Your task to perform on an android device: turn on bluetooth scan Image 0: 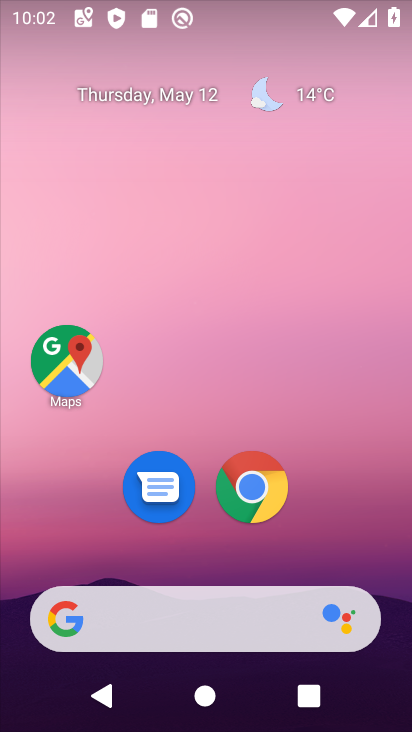
Step 0: drag from (77, 581) to (252, 232)
Your task to perform on an android device: turn on bluetooth scan Image 1: 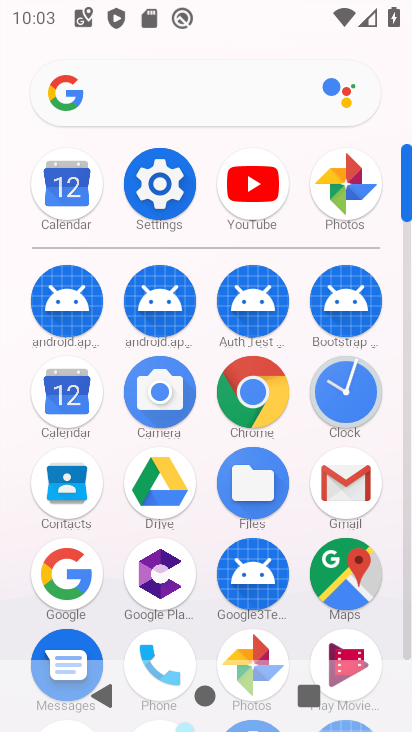
Step 1: click (157, 183)
Your task to perform on an android device: turn on bluetooth scan Image 2: 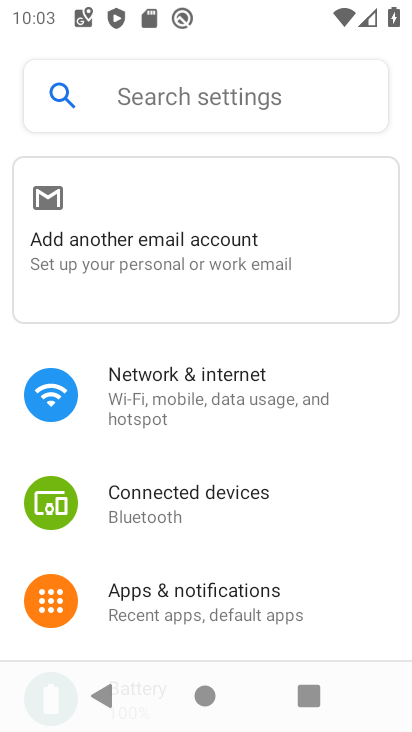
Step 2: drag from (167, 633) to (318, 116)
Your task to perform on an android device: turn on bluetooth scan Image 3: 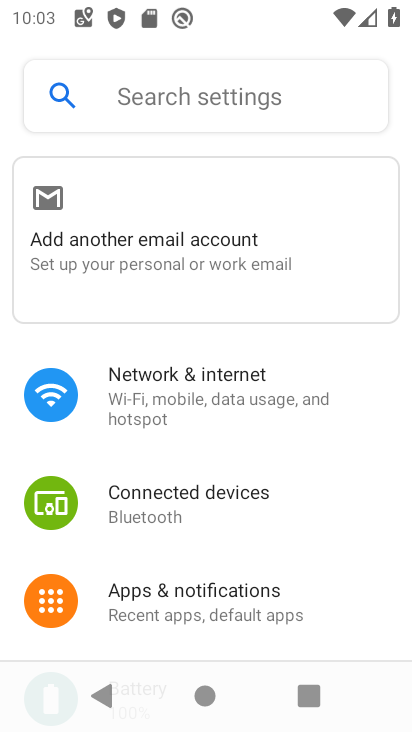
Step 3: drag from (5, 635) to (265, 246)
Your task to perform on an android device: turn on bluetooth scan Image 4: 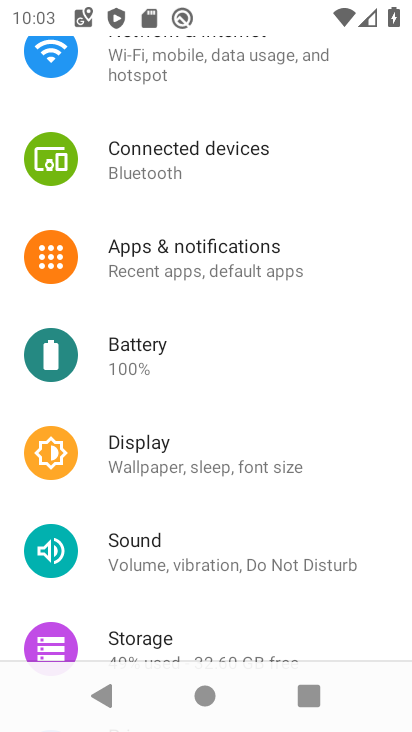
Step 4: drag from (20, 592) to (270, 156)
Your task to perform on an android device: turn on bluetooth scan Image 5: 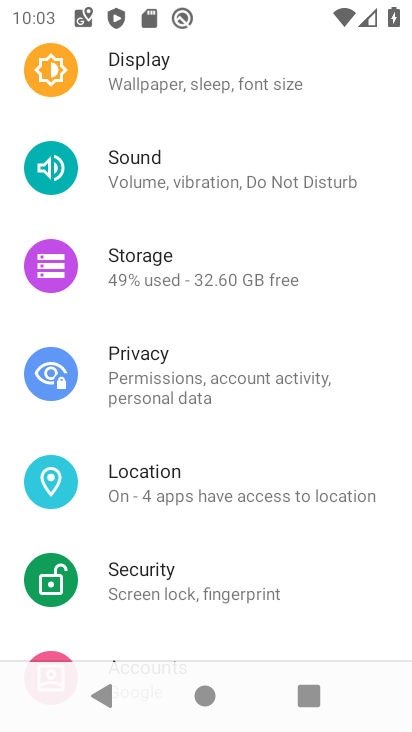
Step 5: click (148, 498)
Your task to perform on an android device: turn on bluetooth scan Image 6: 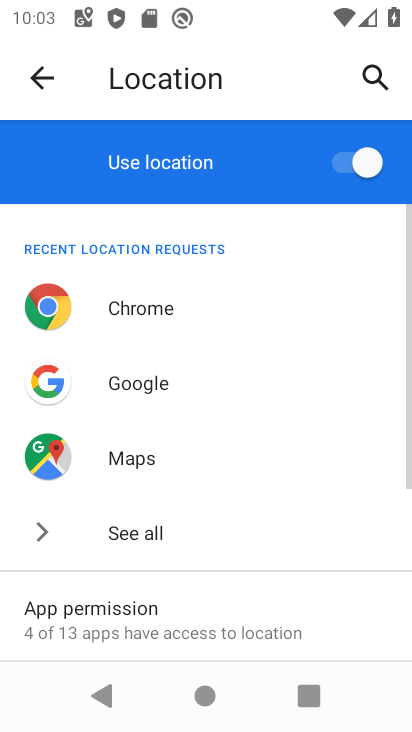
Step 6: drag from (19, 570) to (342, 76)
Your task to perform on an android device: turn on bluetooth scan Image 7: 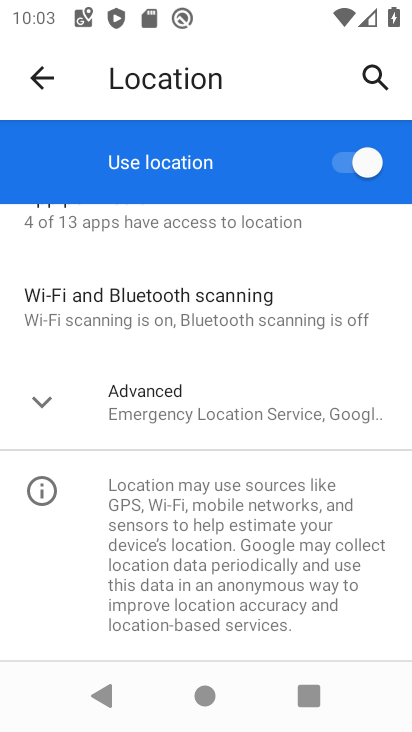
Step 7: click (263, 313)
Your task to perform on an android device: turn on bluetooth scan Image 8: 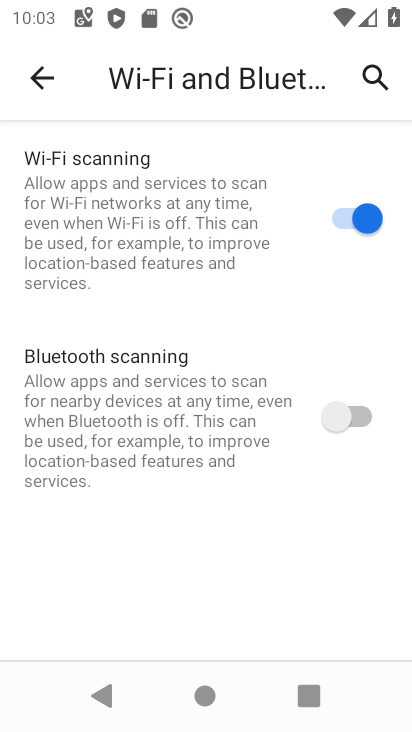
Step 8: click (335, 431)
Your task to perform on an android device: turn on bluetooth scan Image 9: 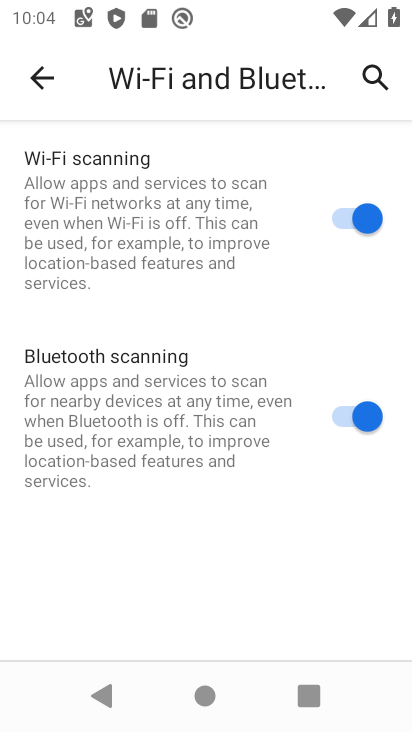
Step 9: task complete